Your task to perform on an android device: Go to Google maps Image 0: 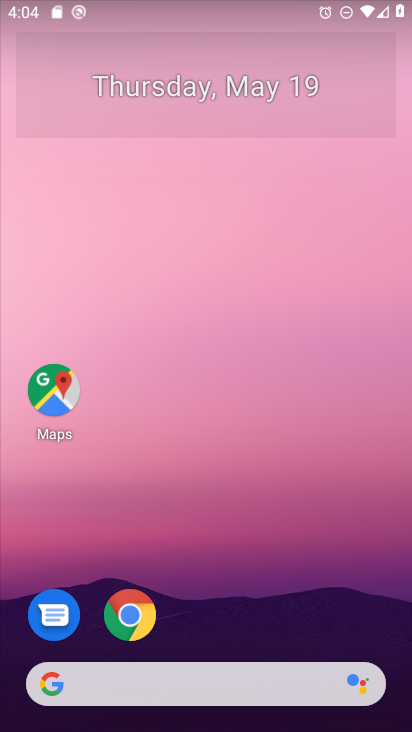
Step 0: click (47, 402)
Your task to perform on an android device: Go to Google maps Image 1: 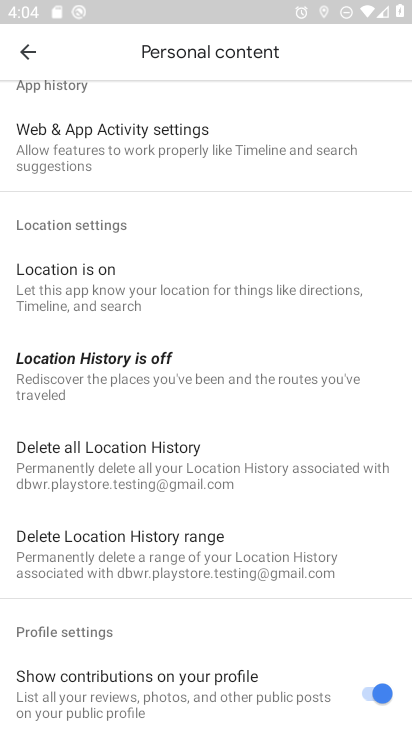
Step 1: click (25, 50)
Your task to perform on an android device: Go to Google maps Image 2: 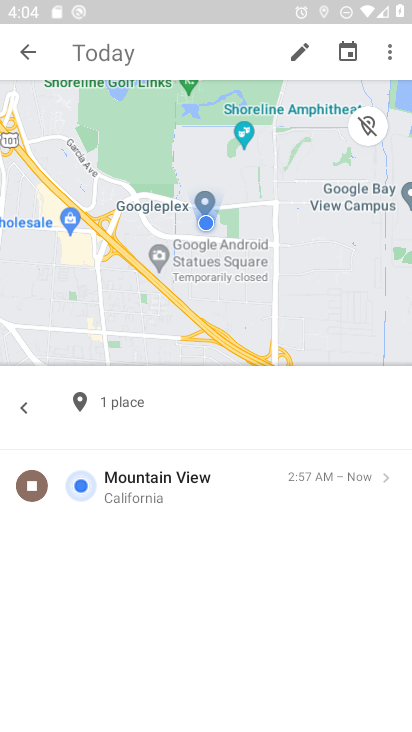
Step 2: click (25, 50)
Your task to perform on an android device: Go to Google maps Image 3: 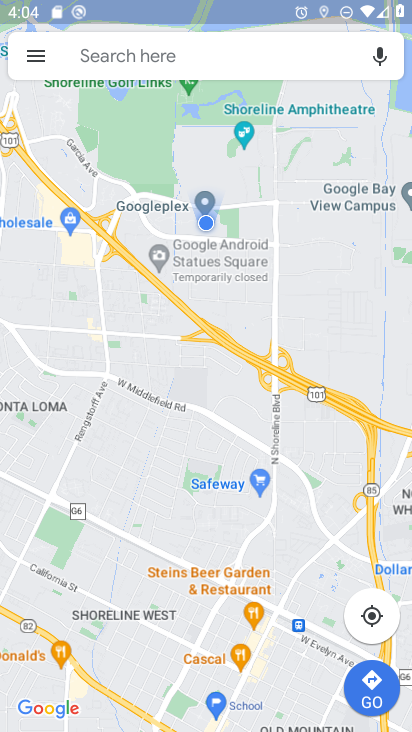
Step 3: task complete